Your task to perform on an android device: stop showing notifications on the lock screen Image 0: 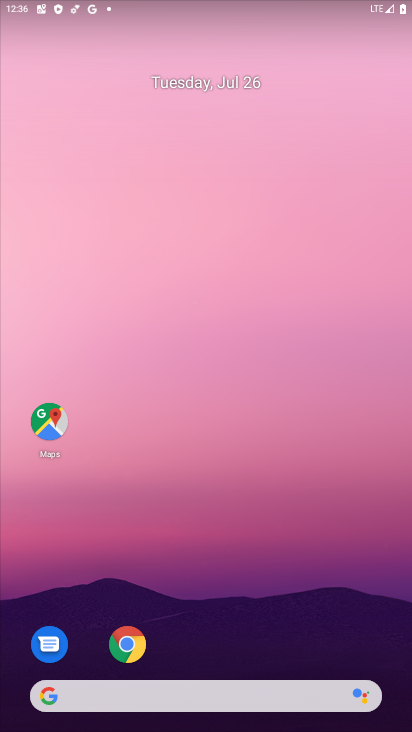
Step 0: drag from (303, 667) to (274, 19)
Your task to perform on an android device: stop showing notifications on the lock screen Image 1: 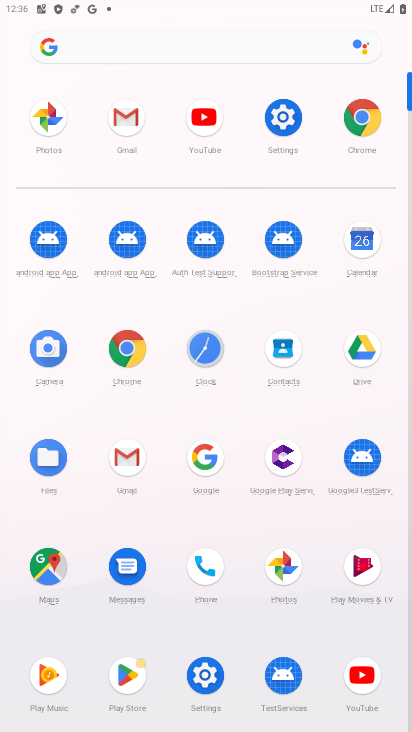
Step 1: click (283, 124)
Your task to perform on an android device: stop showing notifications on the lock screen Image 2: 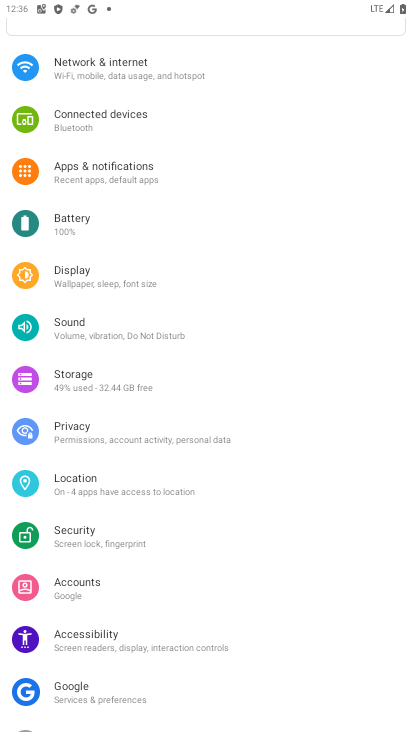
Step 2: click (84, 171)
Your task to perform on an android device: stop showing notifications on the lock screen Image 3: 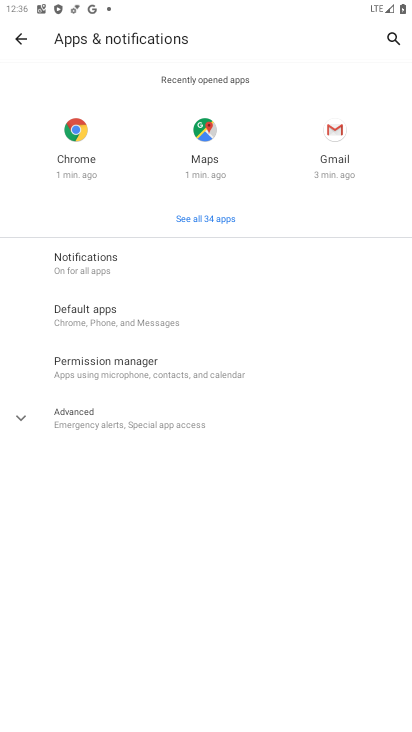
Step 3: click (79, 261)
Your task to perform on an android device: stop showing notifications on the lock screen Image 4: 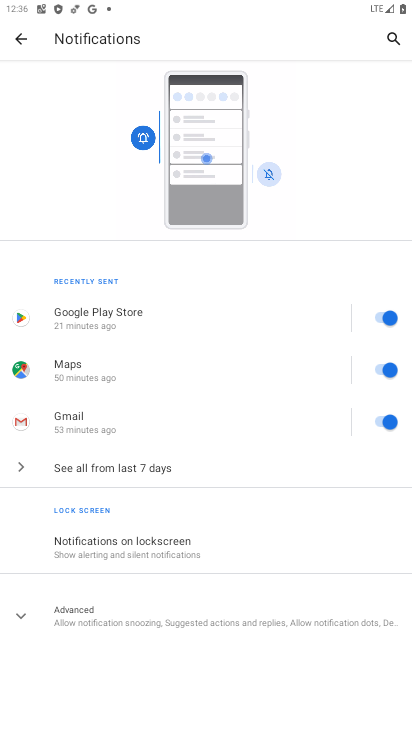
Step 4: click (79, 556)
Your task to perform on an android device: stop showing notifications on the lock screen Image 5: 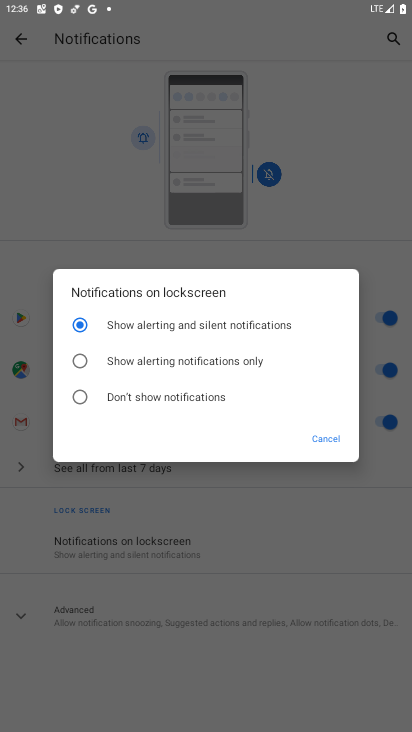
Step 5: click (84, 394)
Your task to perform on an android device: stop showing notifications on the lock screen Image 6: 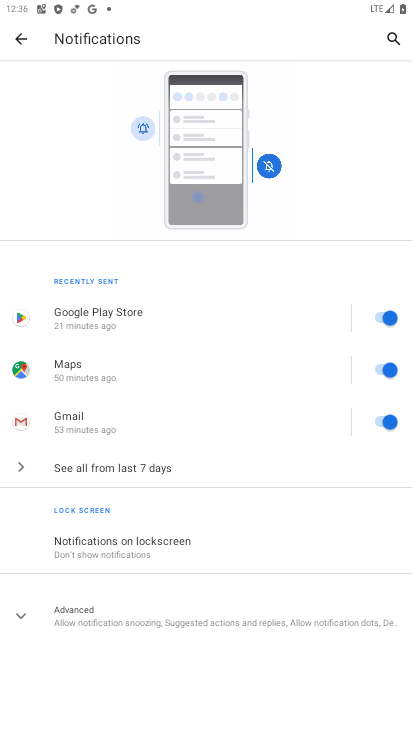
Step 6: task complete